Your task to perform on an android device: Open ESPN.com Image 0: 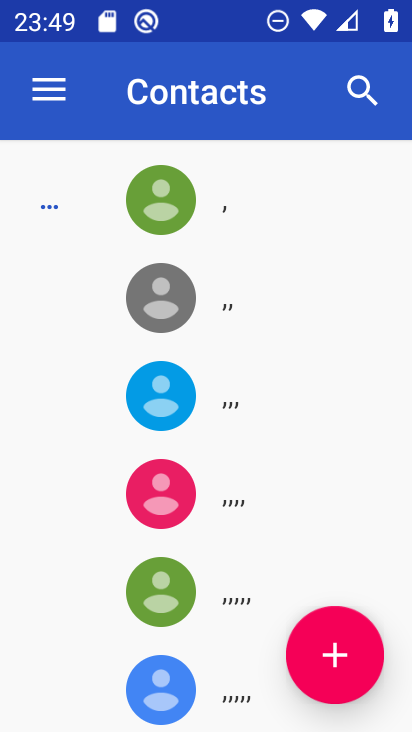
Step 0: press home button
Your task to perform on an android device: Open ESPN.com Image 1: 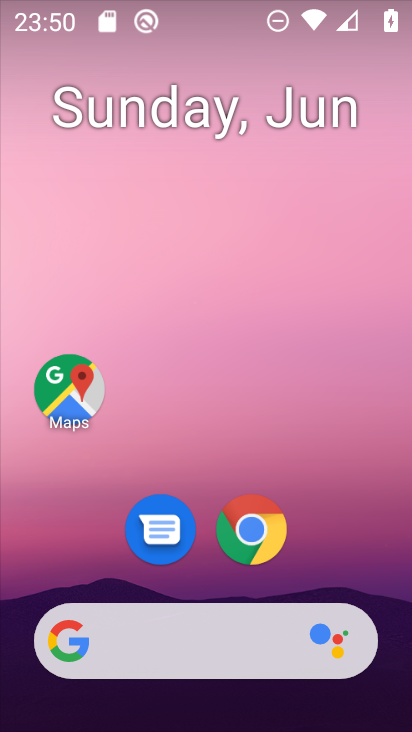
Step 1: click (255, 529)
Your task to perform on an android device: Open ESPN.com Image 2: 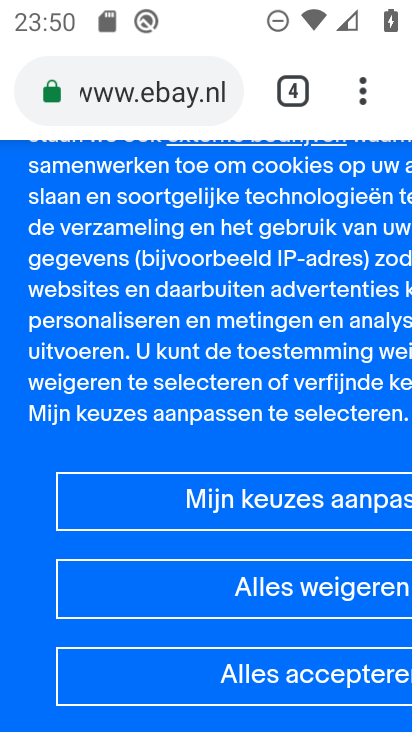
Step 2: click (196, 67)
Your task to perform on an android device: Open ESPN.com Image 3: 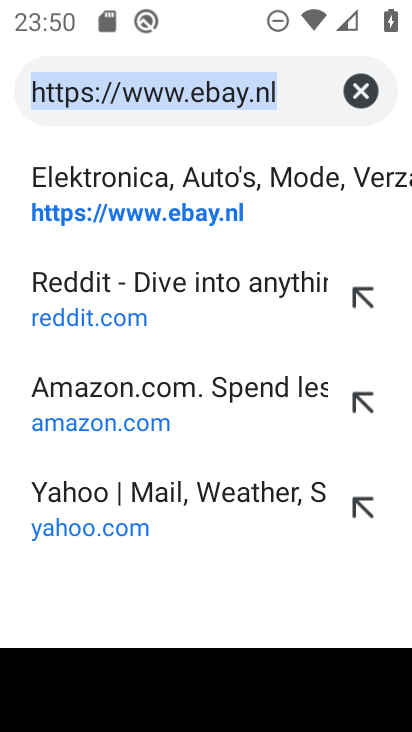
Step 3: click (369, 92)
Your task to perform on an android device: Open ESPN.com Image 4: 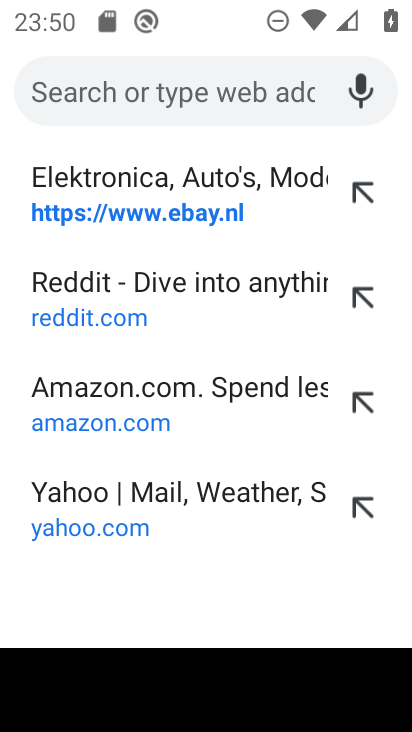
Step 4: type "espn.com"
Your task to perform on an android device: Open ESPN.com Image 5: 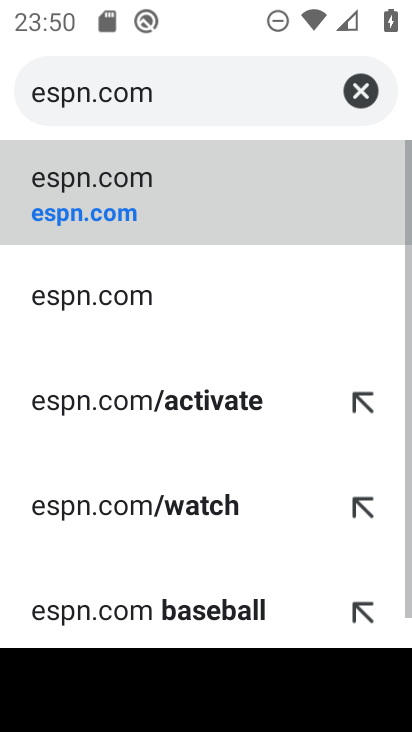
Step 5: click (78, 189)
Your task to perform on an android device: Open ESPN.com Image 6: 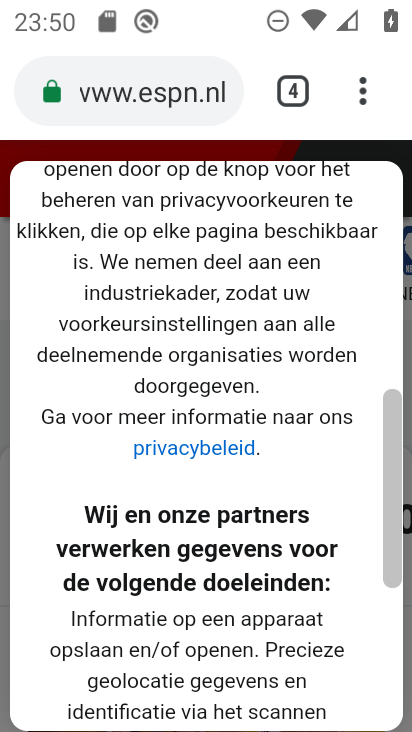
Step 6: drag from (290, 612) to (276, 173)
Your task to perform on an android device: Open ESPN.com Image 7: 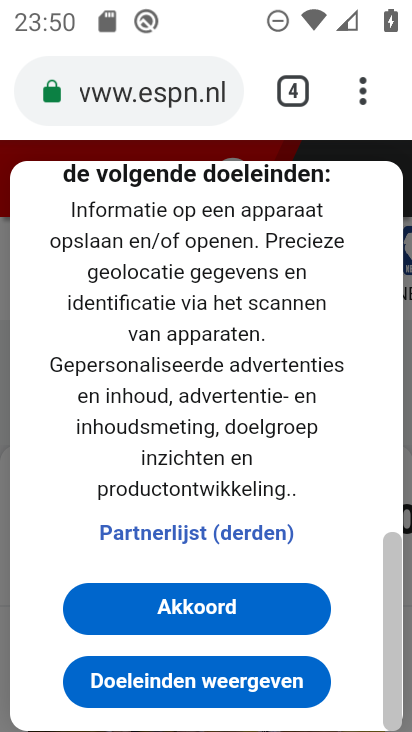
Step 7: click (184, 607)
Your task to perform on an android device: Open ESPN.com Image 8: 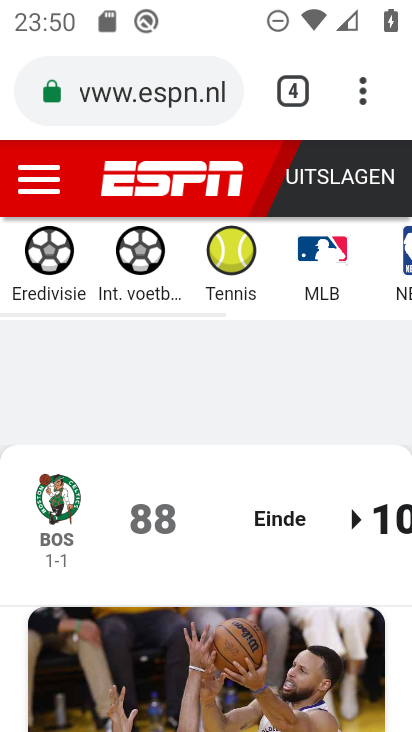
Step 8: task complete